Your task to perform on an android device: Open Google Maps and go to "Timeline" Image 0: 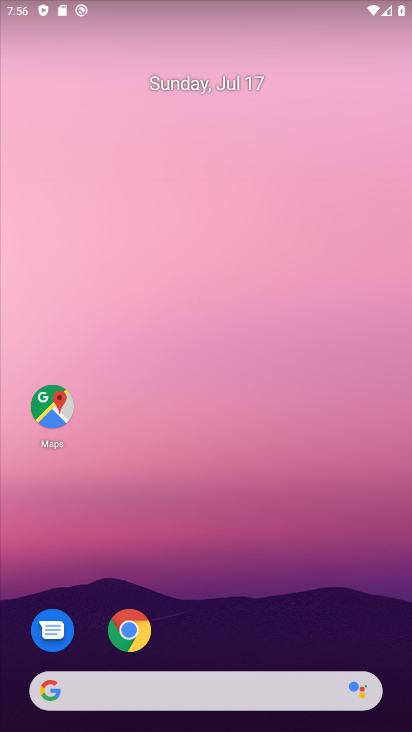
Step 0: drag from (348, 603) to (369, 97)
Your task to perform on an android device: Open Google Maps and go to "Timeline" Image 1: 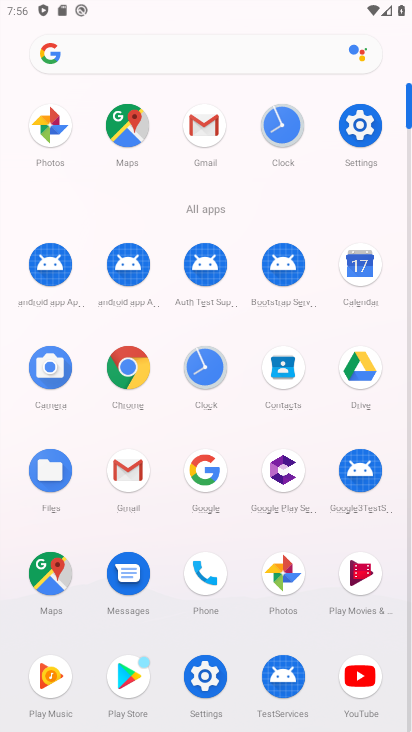
Step 1: click (126, 138)
Your task to perform on an android device: Open Google Maps and go to "Timeline" Image 2: 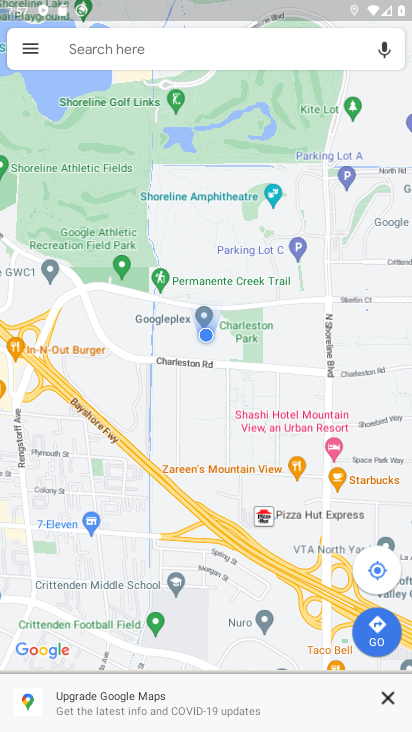
Step 2: click (25, 45)
Your task to perform on an android device: Open Google Maps and go to "Timeline" Image 3: 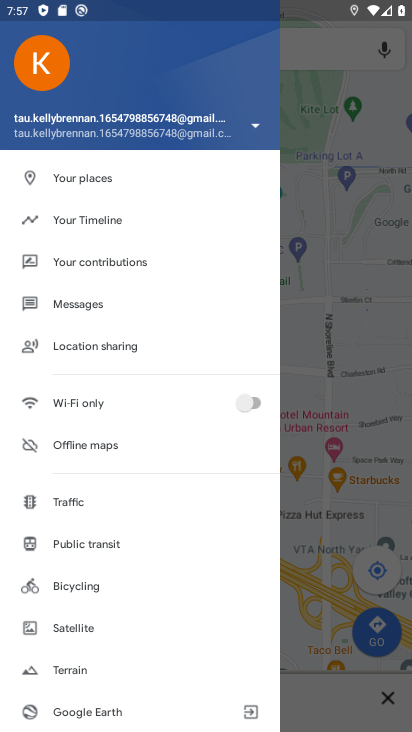
Step 3: click (100, 223)
Your task to perform on an android device: Open Google Maps and go to "Timeline" Image 4: 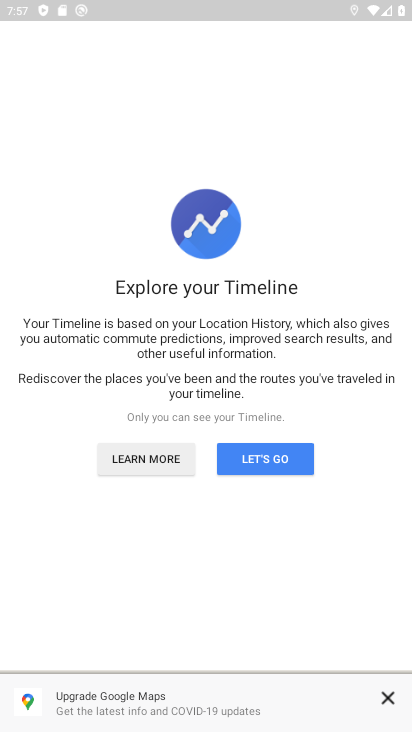
Step 4: task complete